Your task to perform on an android device: delete a single message in the gmail app Image 0: 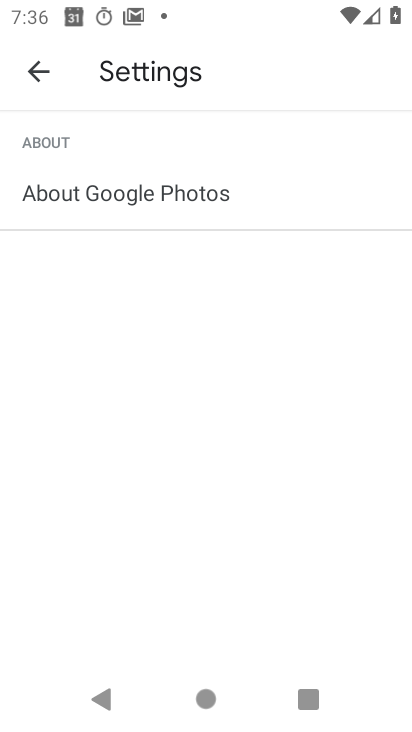
Step 0: press home button
Your task to perform on an android device: delete a single message in the gmail app Image 1: 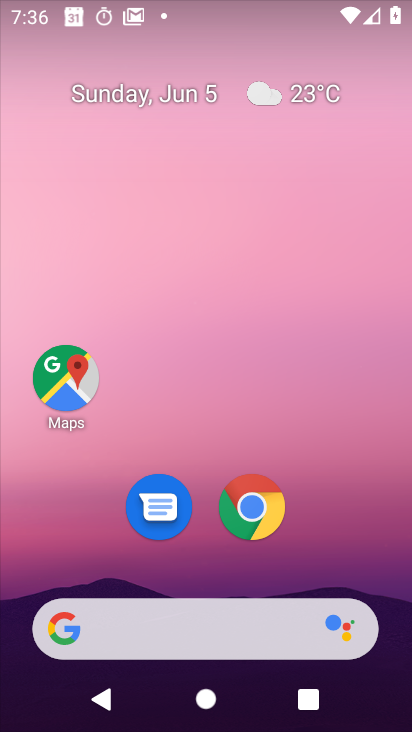
Step 1: drag from (233, 656) to (144, 48)
Your task to perform on an android device: delete a single message in the gmail app Image 2: 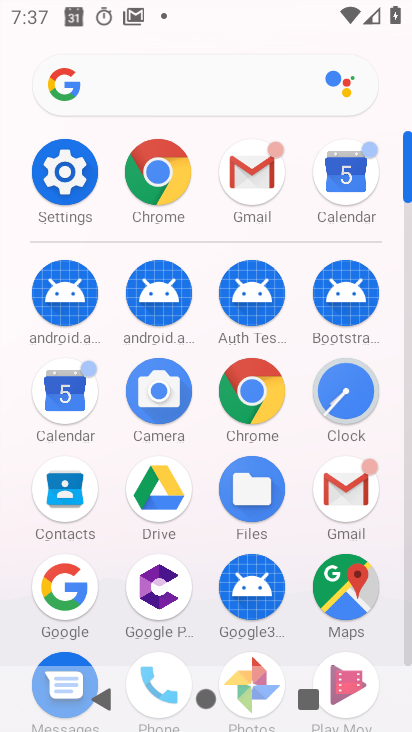
Step 2: click (362, 484)
Your task to perform on an android device: delete a single message in the gmail app Image 3: 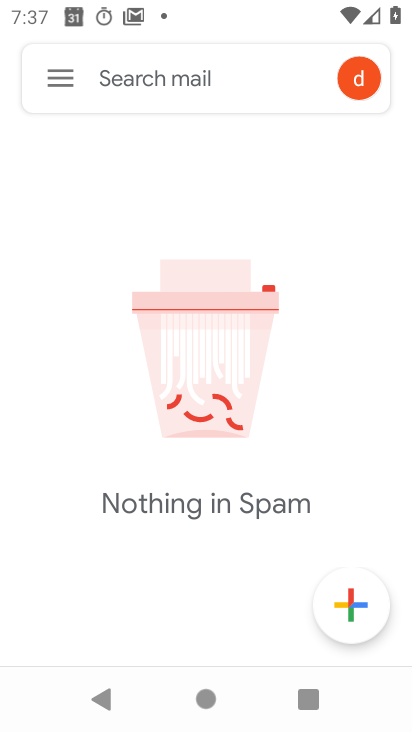
Step 3: click (66, 74)
Your task to perform on an android device: delete a single message in the gmail app Image 4: 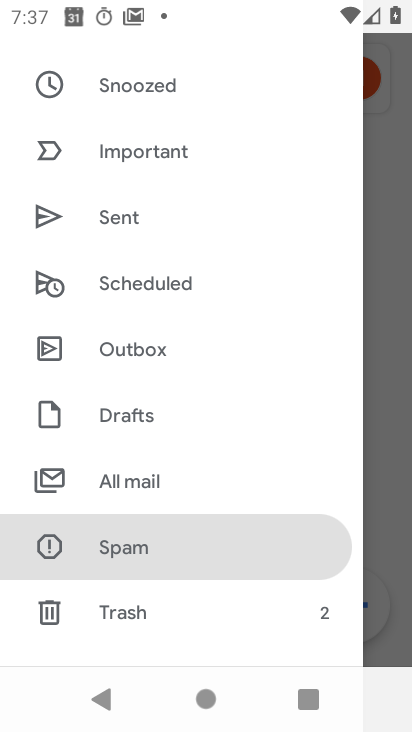
Step 4: drag from (166, 519) to (139, 390)
Your task to perform on an android device: delete a single message in the gmail app Image 5: 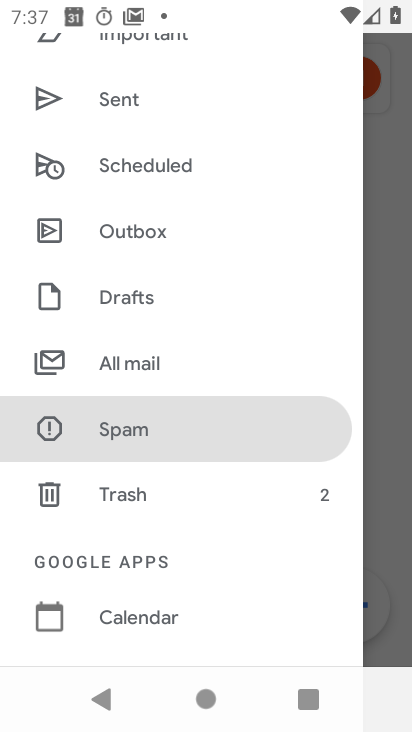
Step 5: click (139, 349)
Your task to perform on an android device: delete a single message in the gmail app Image 6: 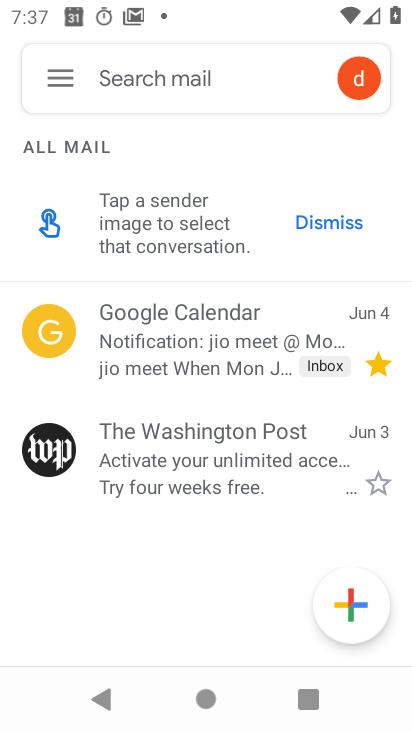
Step 6: task complete